Your task to perform on an android device: turn off translation in the chrome app Image 0: 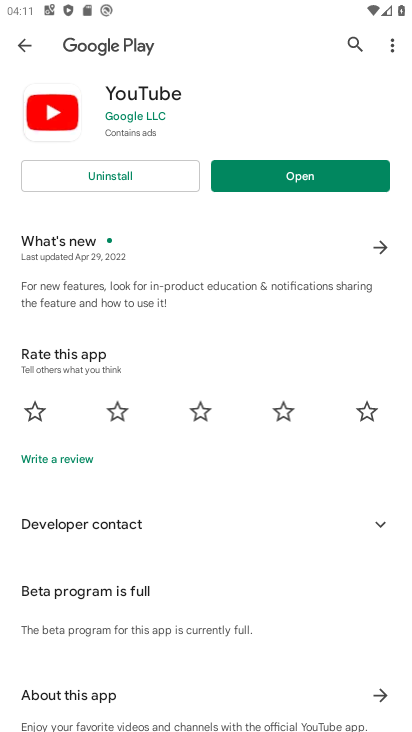
Step 0: press home button
Your task to perform on an android device: turn off translation in the chrome app Image 1: 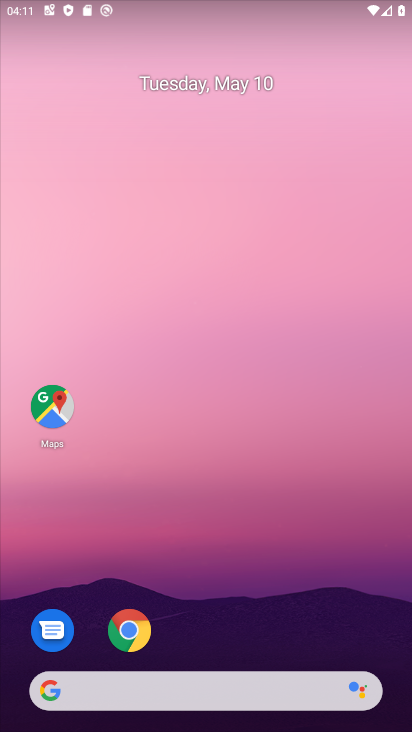
Step 1: drag from (186, 626) to (205, 178)
Your task to perform on an android device: turn off translation in the chrome app Image 2: 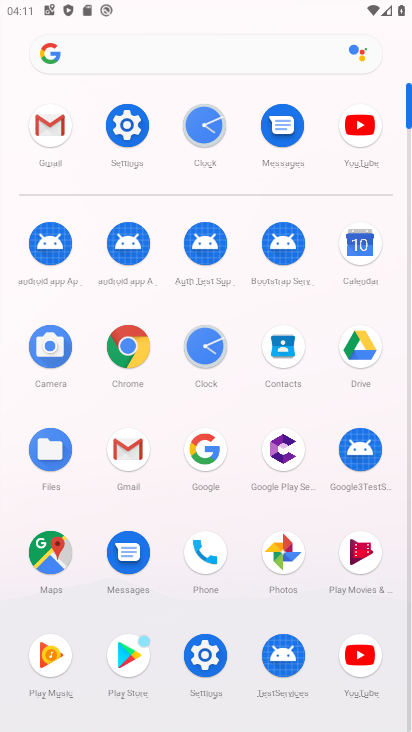
Step 2: click (128, 352)
Your task to perform on an android device: turn off translation in the chrome app Image 3: 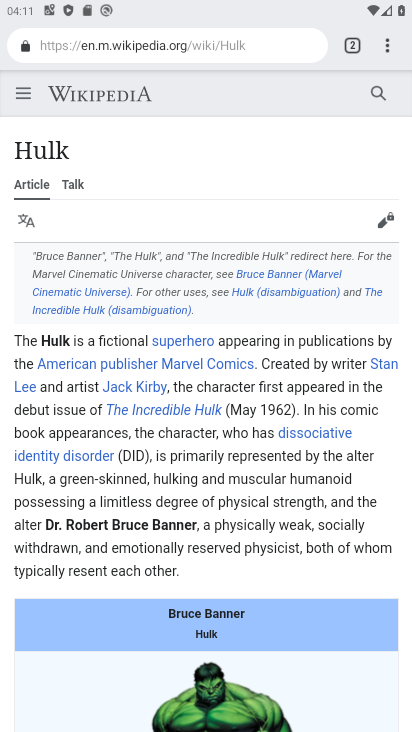
Step 3: click (386, 43)
Your task to perform on an android device: turn off translation in the chrome app Image 4: 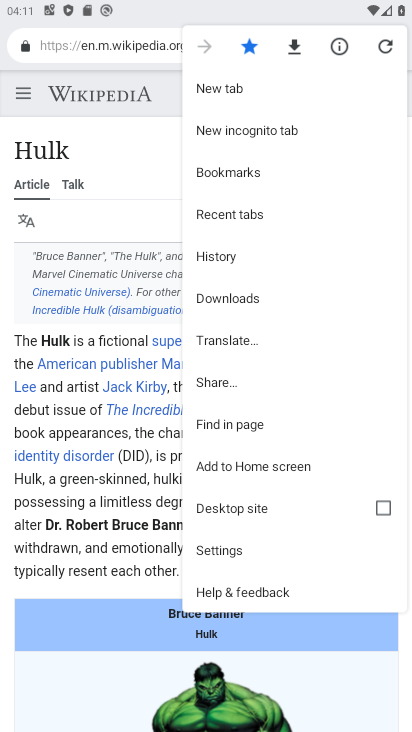
Step 4: click (248, 541)
Your task to perform on an android device: turn off translation in the chrome app Image 5: 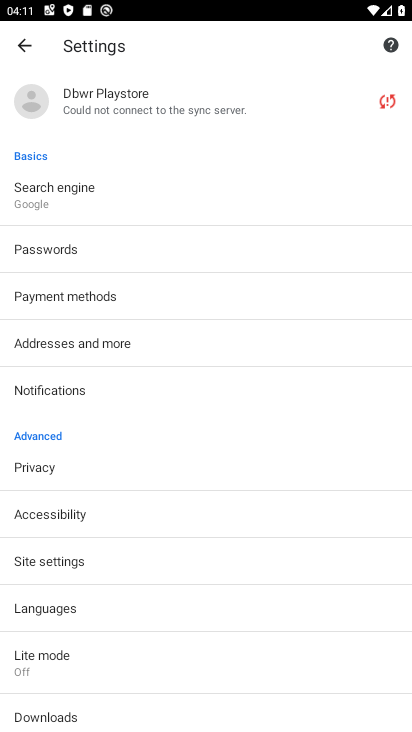
Step 5: click (150, 601)
Your task to perform on an android device: turn off translation in the chrome app Image 6: 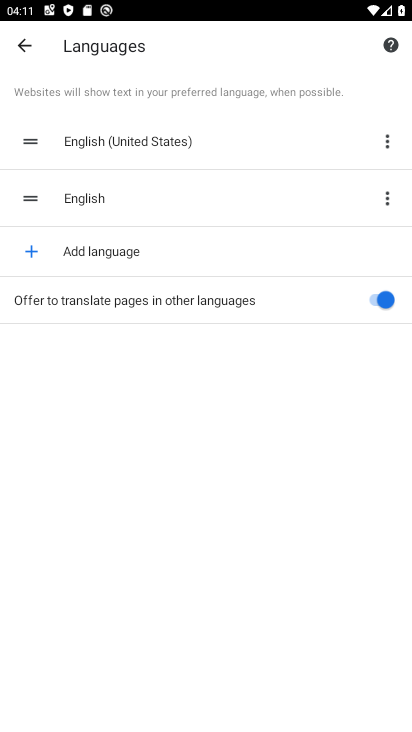
Step 6: click (388, 302)
Your task to perform on an android device: turn off translation in the chrome app Image 7: 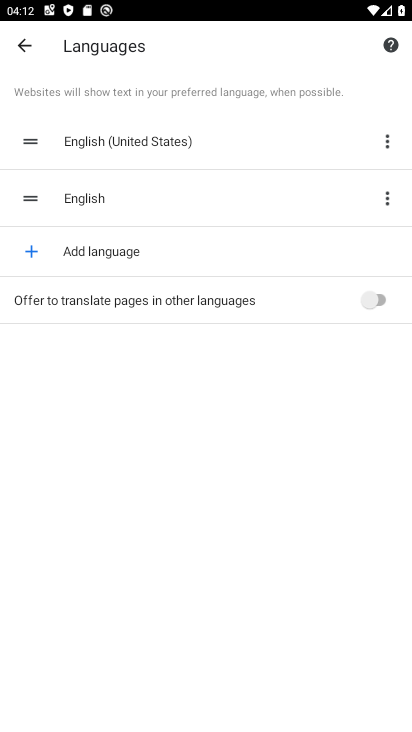
Step 7: task complete